Your task to perform on an android device: Go to Wikipedia Image 0: 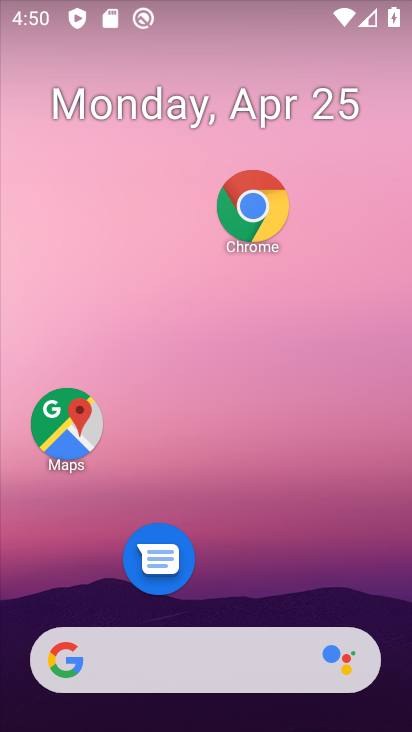
Step 0: click (258, 210)
Your task to perform on an android device: Go to Wikipedia Image 1: 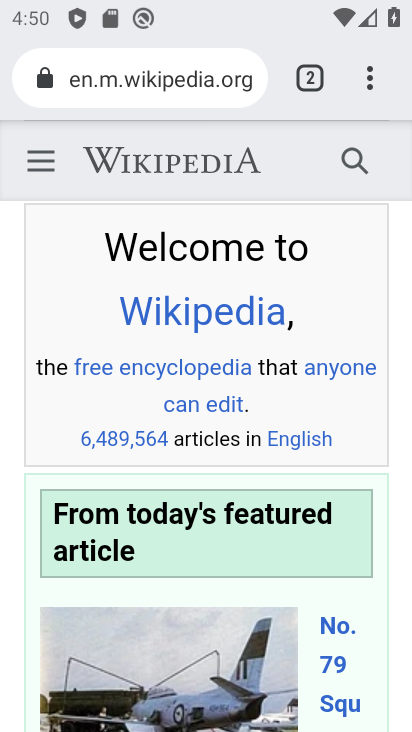
Step 1: task complete